Your task to perform on an android device: set an alarm Image 0: 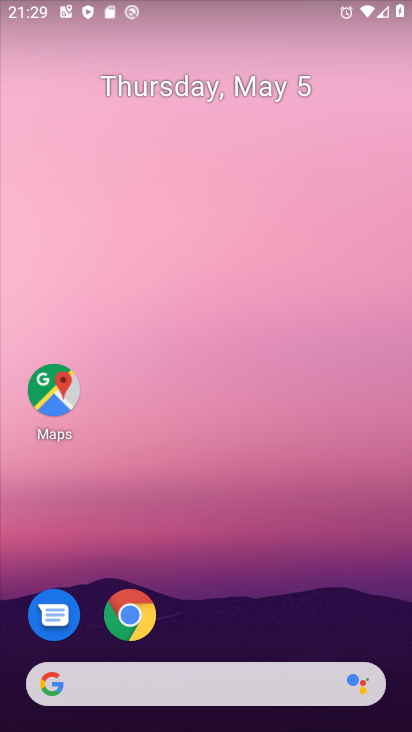
Step 0: drag from (223, 643) to (231, 27)
Your task to perform on an android device: set an alarm Image 1: 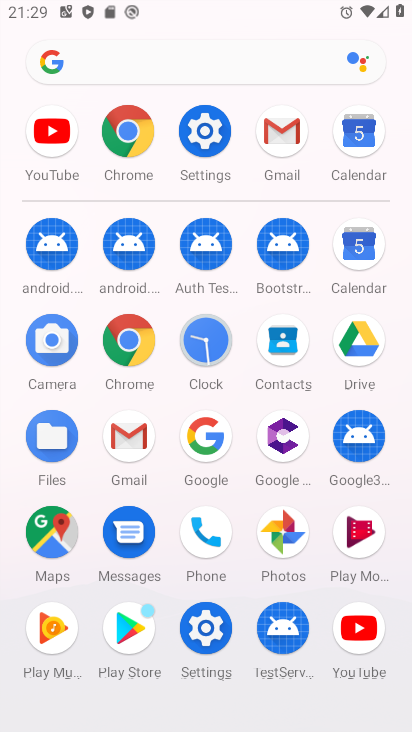
Step 1: click (198, 351)
Your task to perform on an android device: set an alarm Image 2: 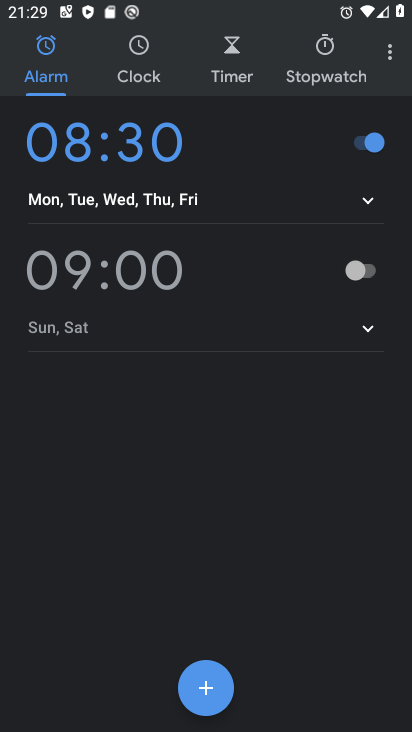
Step 2: click (166, 283)
Your task to perform on an android device: set an alarm Image 3: 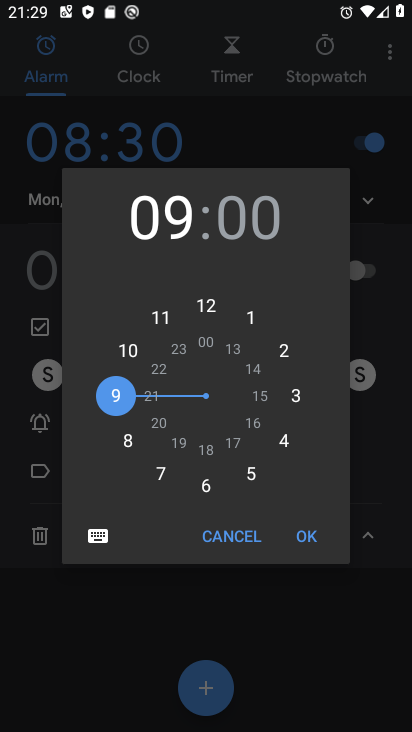
Step 3: click (207, 348)
Your task to perform on an android device: set an alarm Image 4: 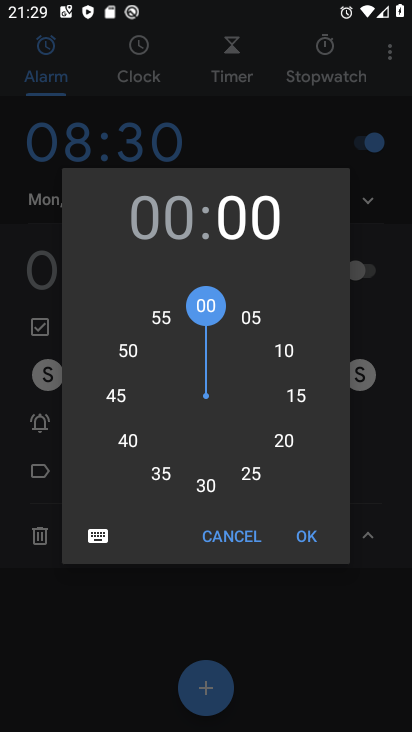
Step 4: click (250, 316)
Your task to perform on an android device: set an alarm Image 5: 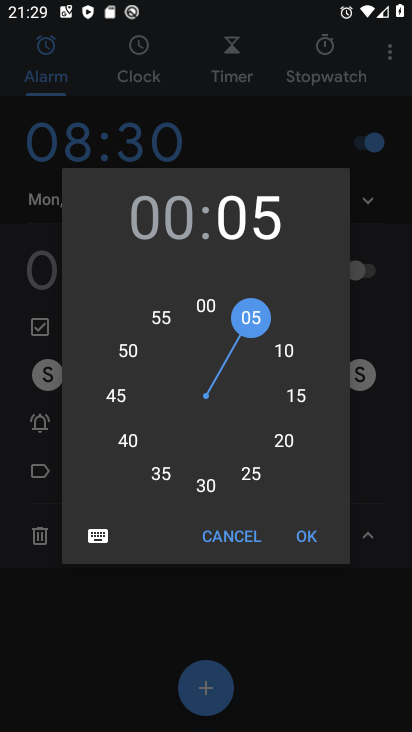
Step 5: click (309, 533)
Your task to perform on an android device: set an alarm Image 6: 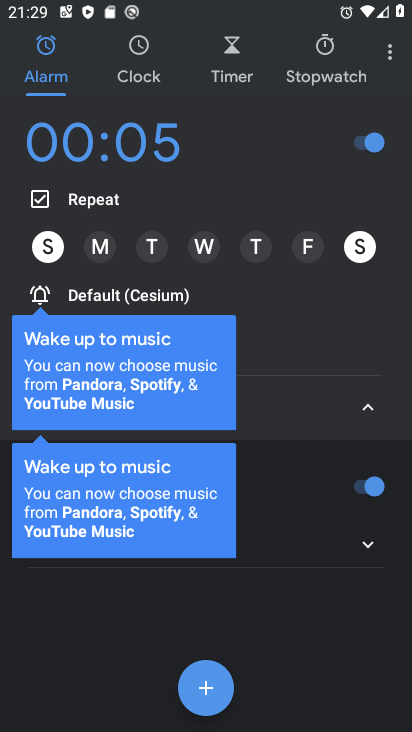
Step 6: task complete